Your task to perform on an android device: turn off translation in the chrome app Image 0: 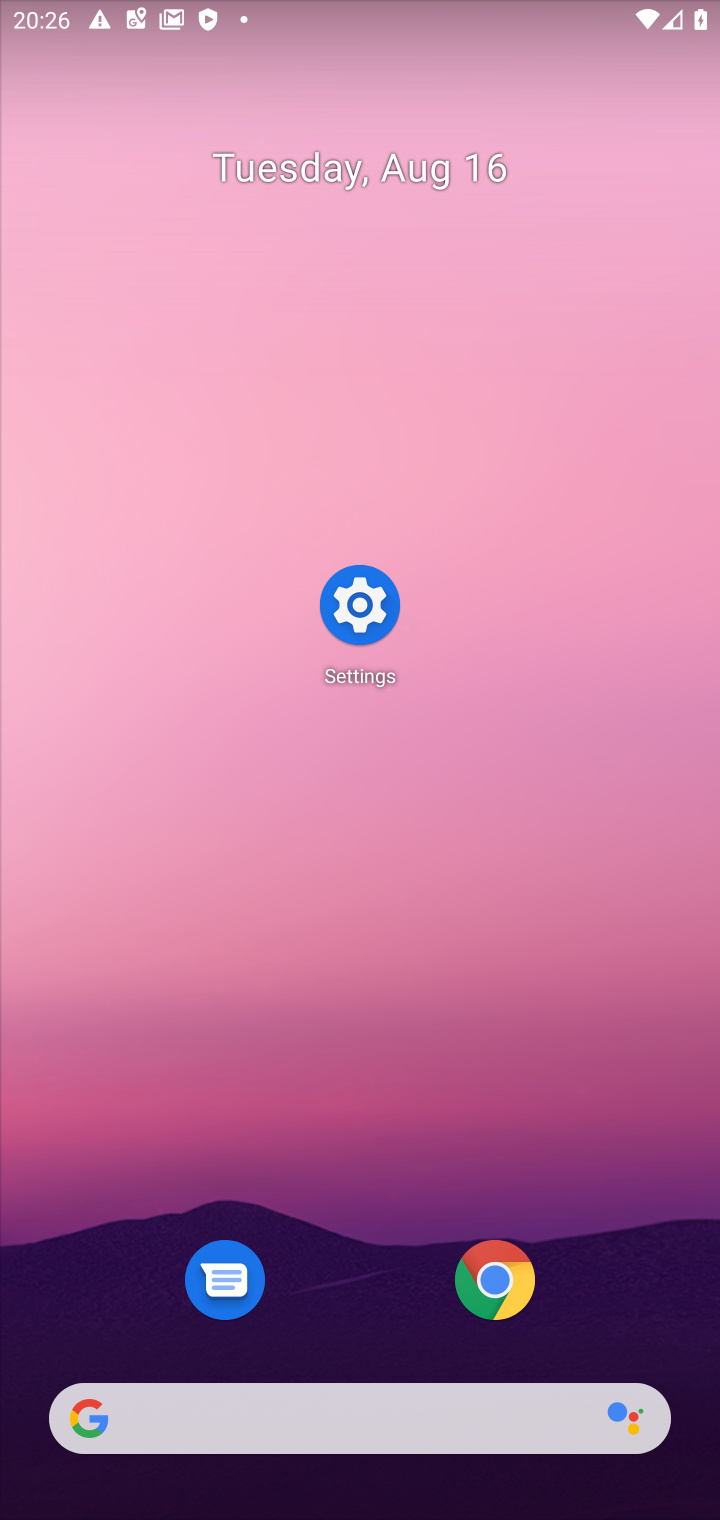
Step 0: drag from (353, 1271) to (479, 33)
Your task to perform on an android device: turn off translation in the chrome app Image 1: 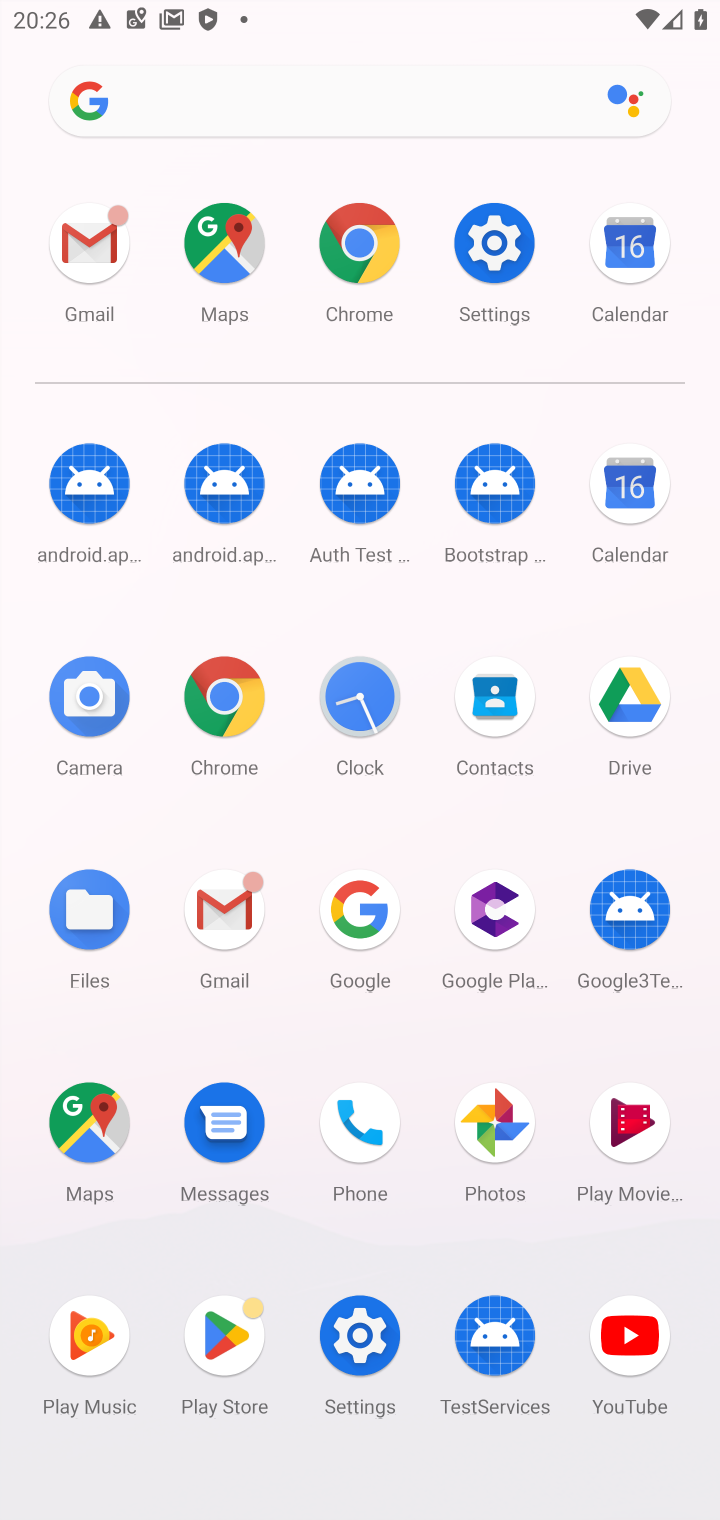
Step 1: click (218, 718)
Your task to perform on an android device: turn off translation in the chrome app Image 2: 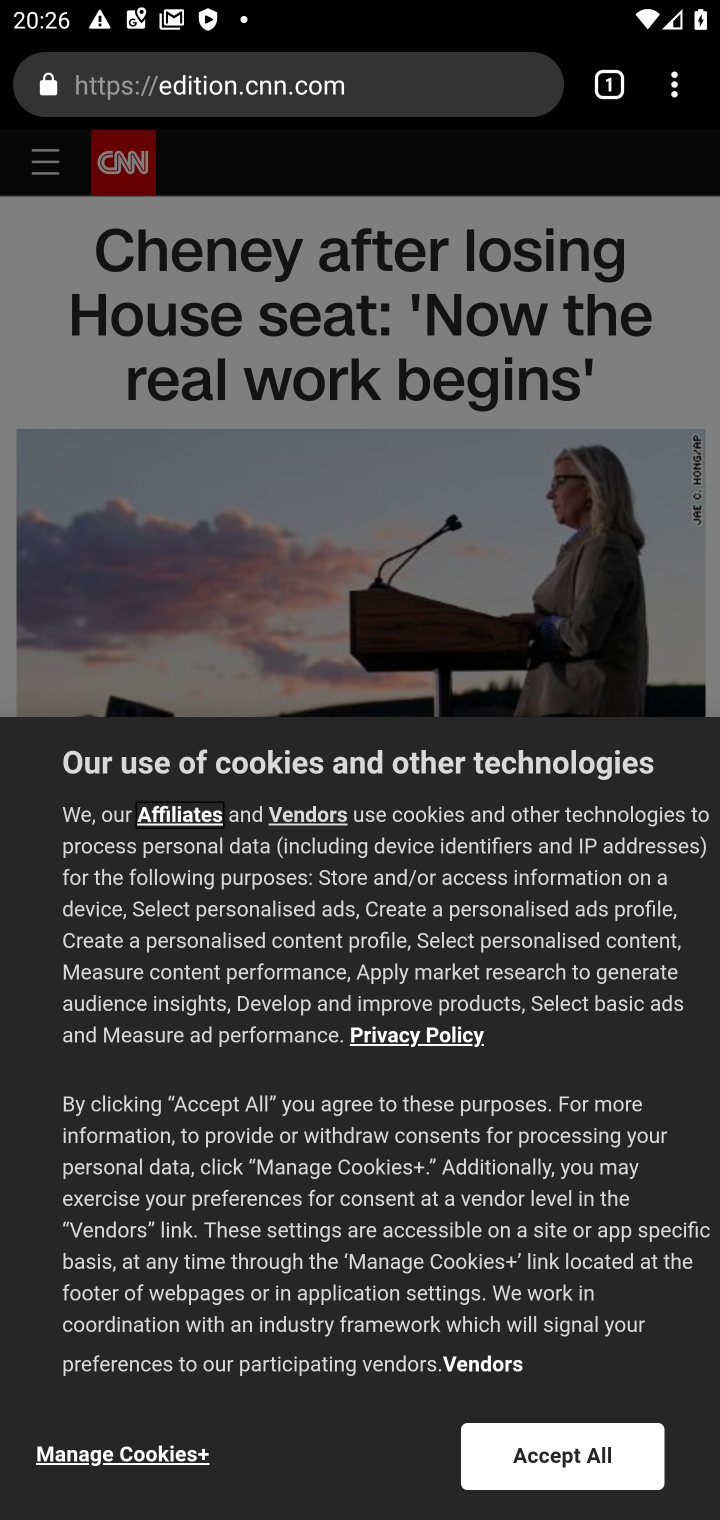
Step 2: click (676, 93)
Your task to perform on an android device: turn off translation in the chrome app Image 3: 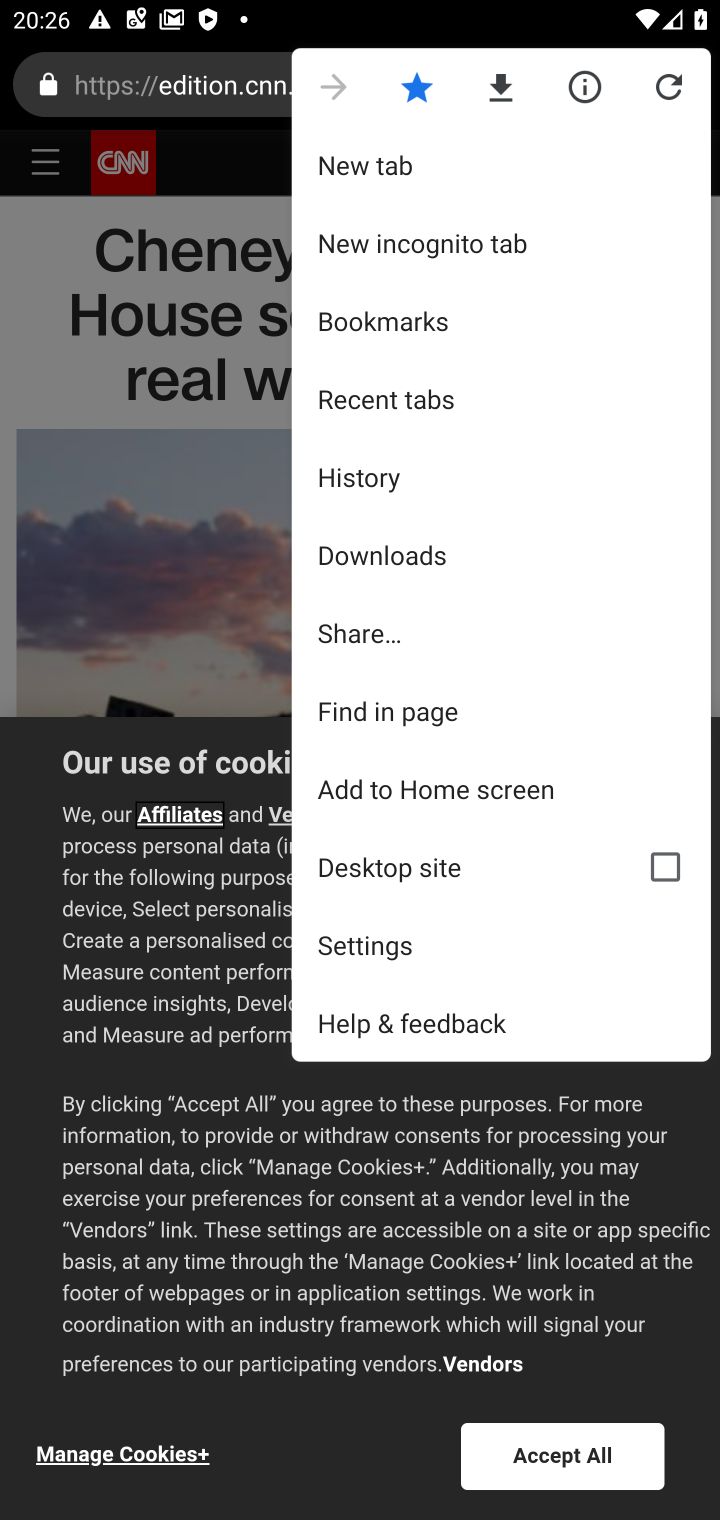
Step 3: click (392, 950)
Your task to perform on an android device: turn off translation in the chrome app Image 4: 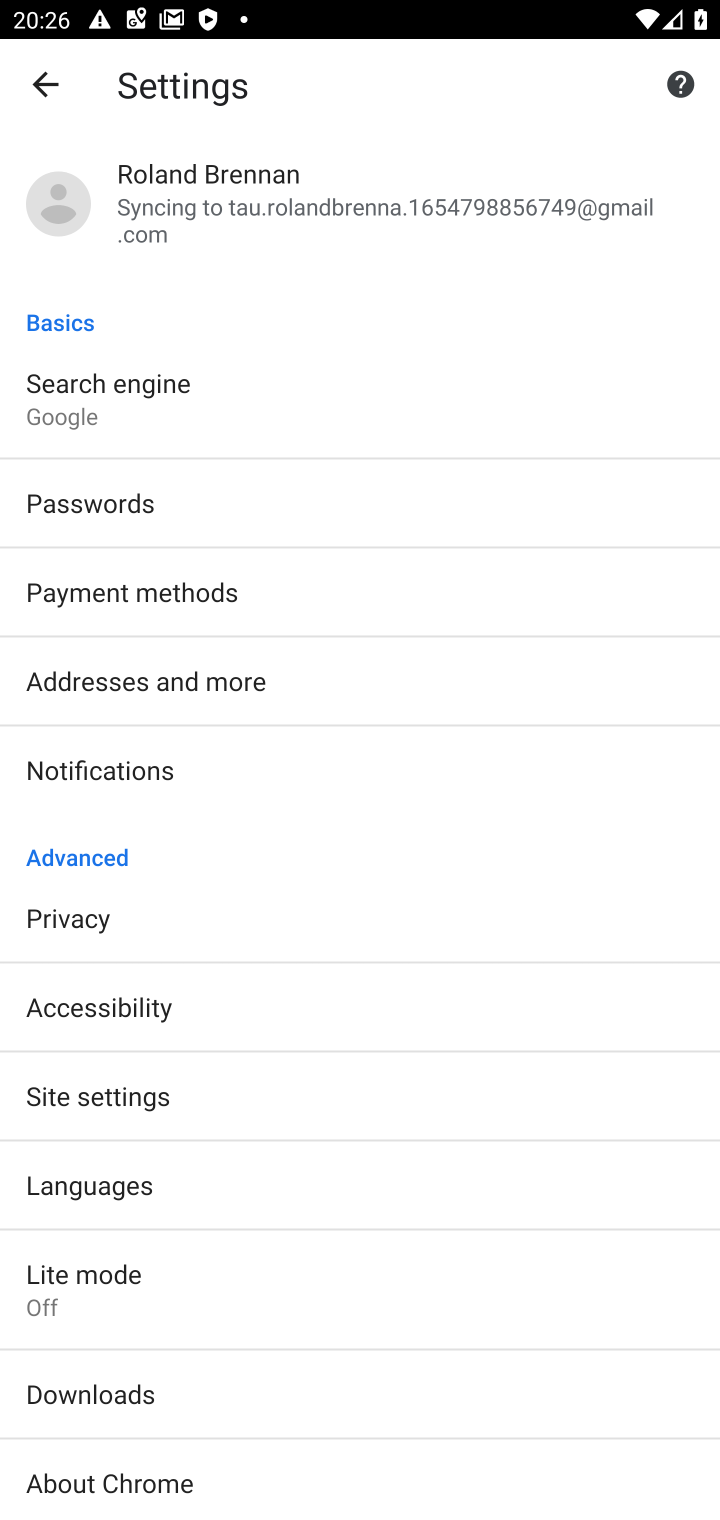
Step 4: click (153, 1190)
Your task to perform on an android device: turn off translation in the chrome app Image 5: 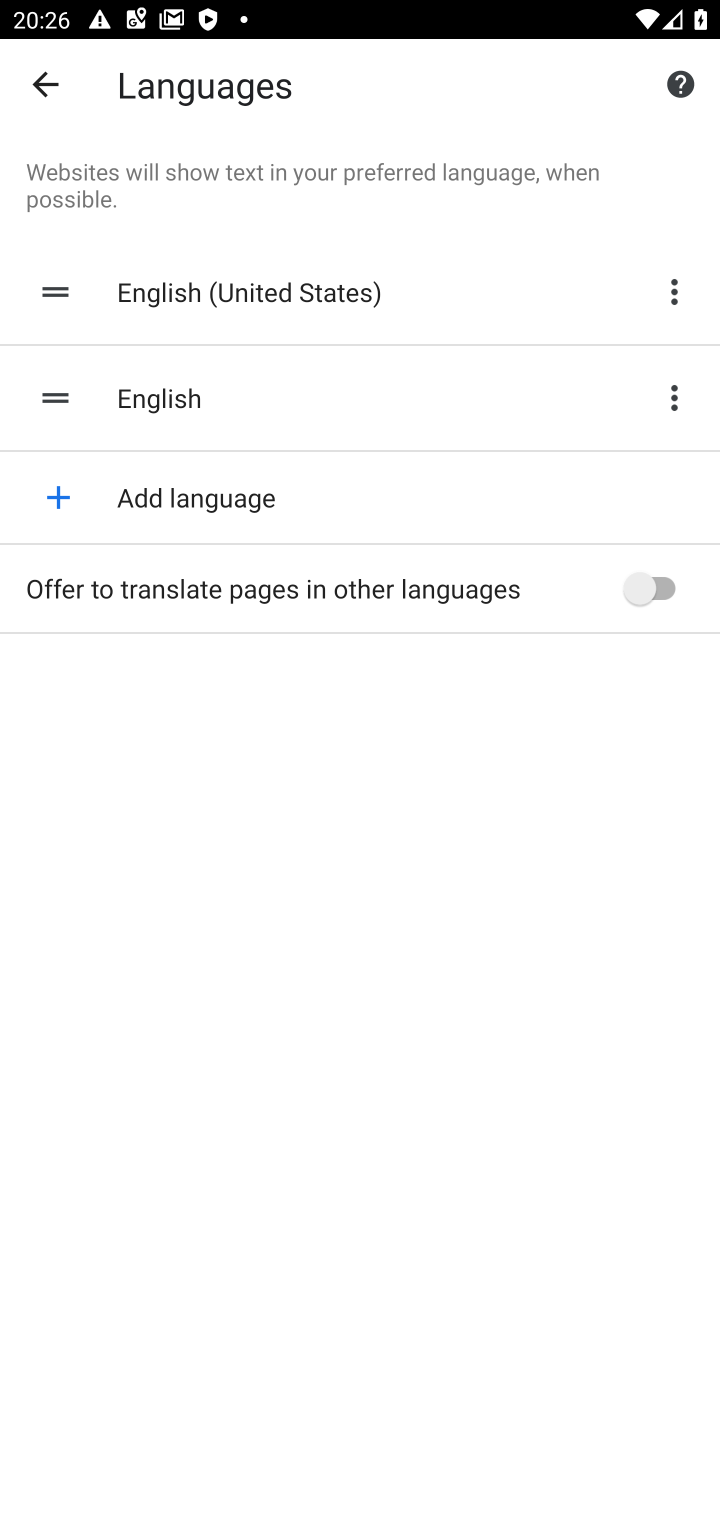
Step 5: task complete